Your task to perform on an android device: star an email in the gmail app Image 0: 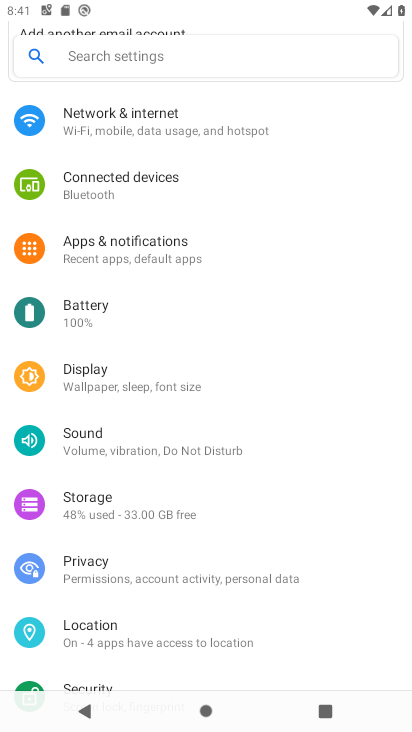
Step 0: press home button
Your task to perform on an android device: star an email in the gmail app Image 1: 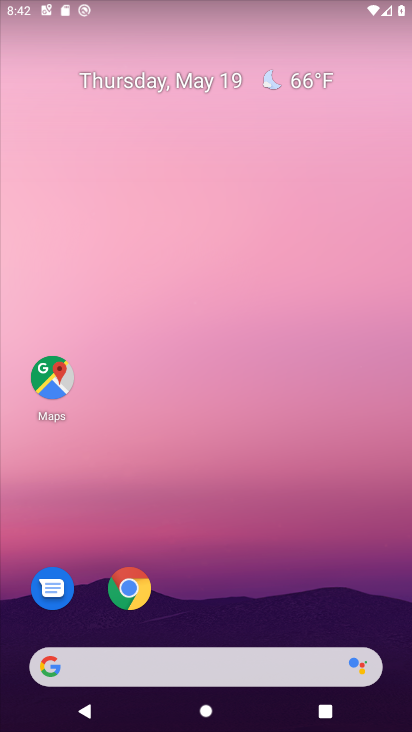
Step 1: drag from (330, 590) to (304, 178)
Your task to perform on an android device: star an email in the gmail app Image 2: 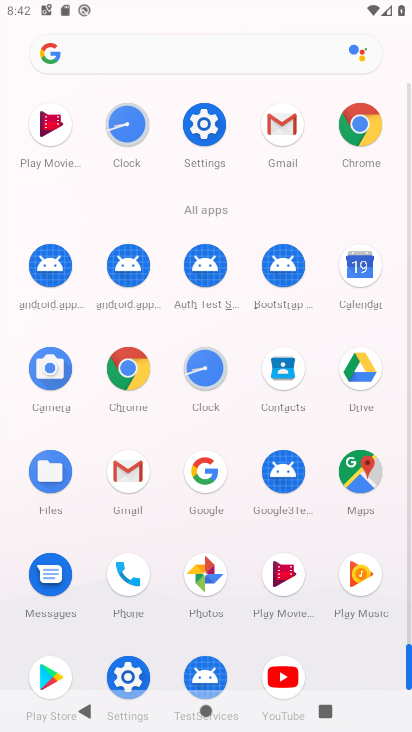
Step 2: click (133, 480)
Your task to perform on an android device: star an email in the gmail app Image 3: 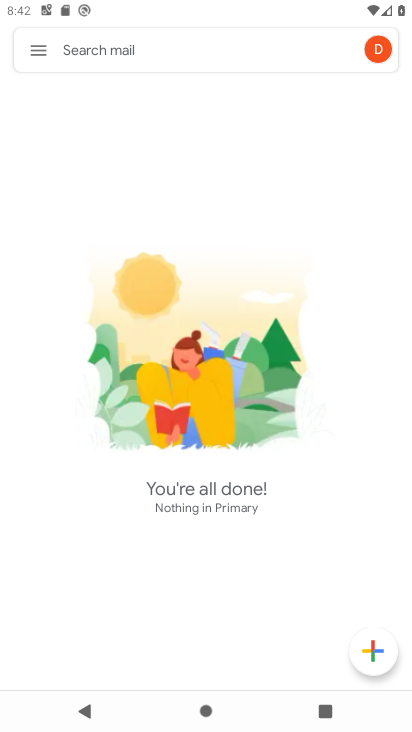
Step 3: click (35, 49)
Your task to perform on an android device: star an email in the gmail app Image 4: 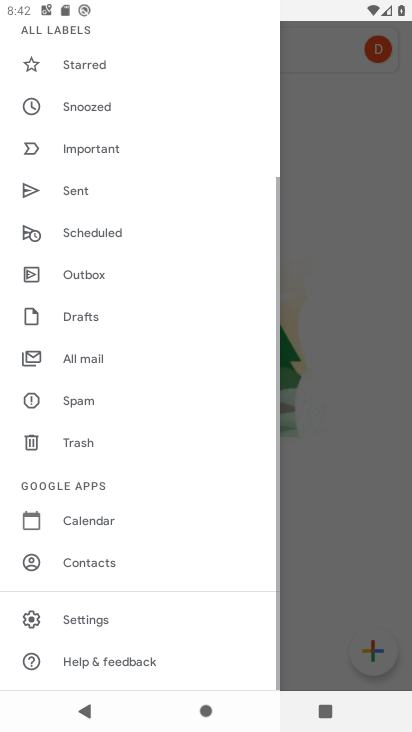
Step 4: drag from (168, 386) to (181, 242)
Your task to perform on an android device: star an email in the gmail app Image 5: 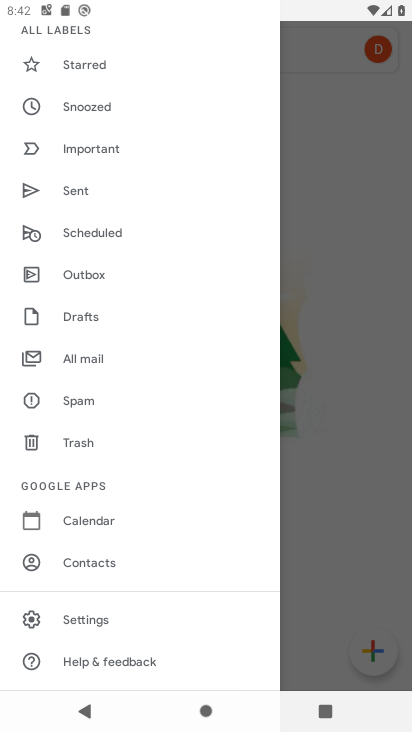
Step 5: drag from (193, 201) to (176, 362)
Your task to perform on an android device: star an email in the gmail app Image 6: 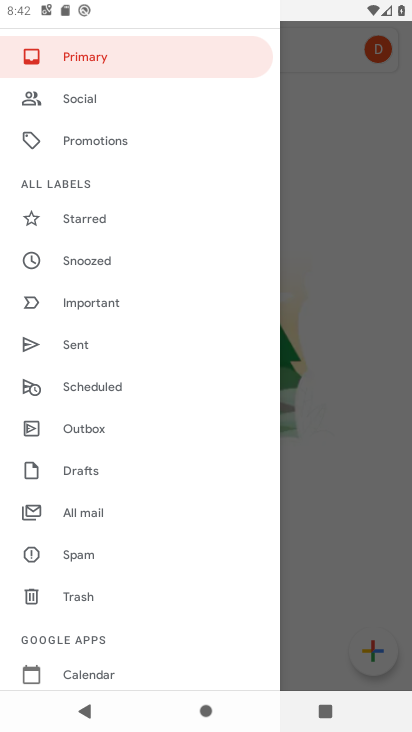
Step 6: drag from (184, 178) to (171, 331)
Your task to perform on an android device: star an email in the gmail app Image 7: 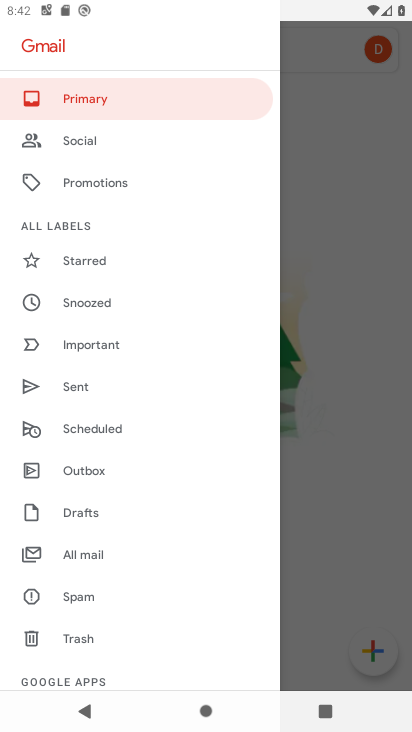
Step 7: drag from (170, 460) to (180, 359)
Your task to perform on an android device: star an email in the gmail app Image 8: 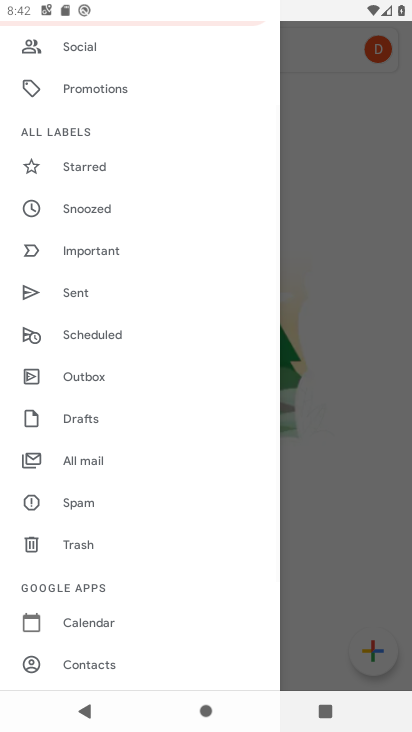
Step 8: drag from (189, 492) to (214, 355)
Your task to perform on an android device: star an email in the gmail app Image 9: 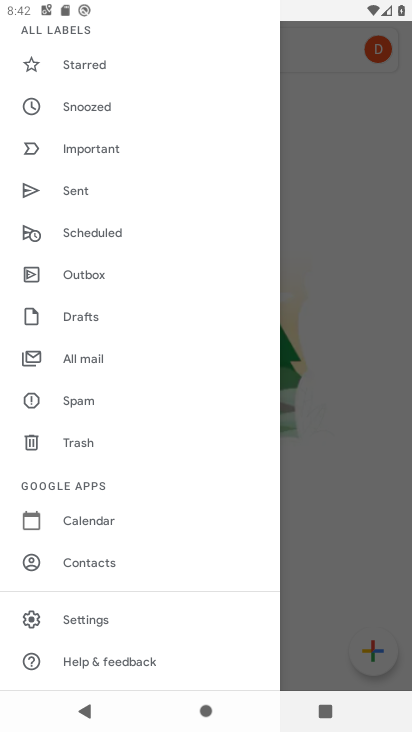
Step 9: drag from (213, 510) to (211, 421)
Your task to perform on an android device: star an email in the gmail app Image 10: 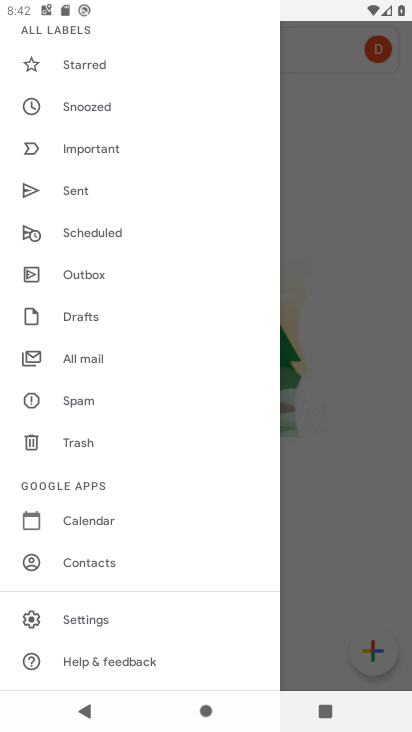
Step 10: drag from (211, 318) to (194, 439)
Your task to perform on an android device: star an email in the gmail app Image 11: 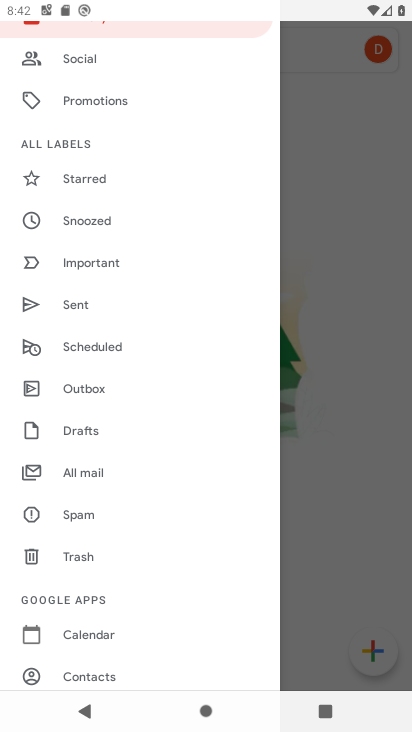
Step 11: drag from (189, 286) to (182, 428)
Your task to perform on an android device: star an email in the gmail app Image 12: 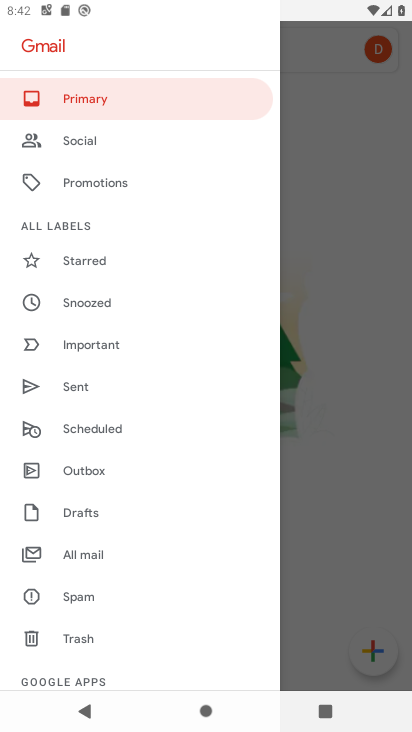
Step 12: click (148, 100)
Your task to perform on an android device: star an email in the gmail app Image 13: 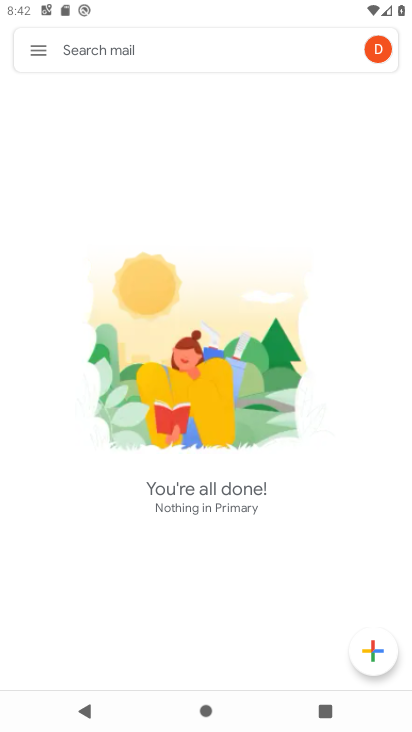
Step 13: task complete